Your task to perform on an android device: set the stopwatch Image 0: 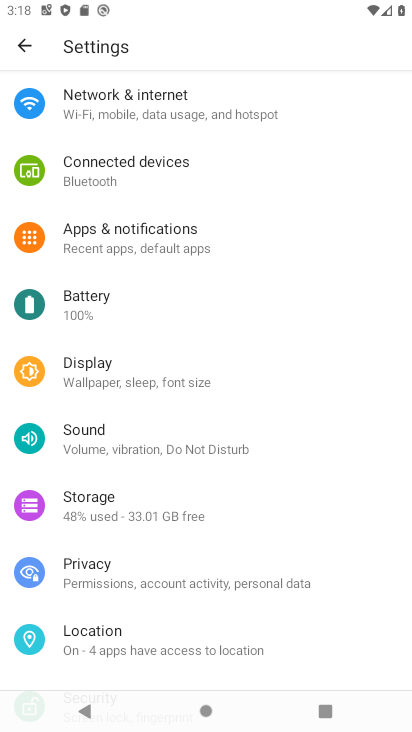
Step 0: press home button
Your task to perform on an android device: set the stopwatch Image 1: 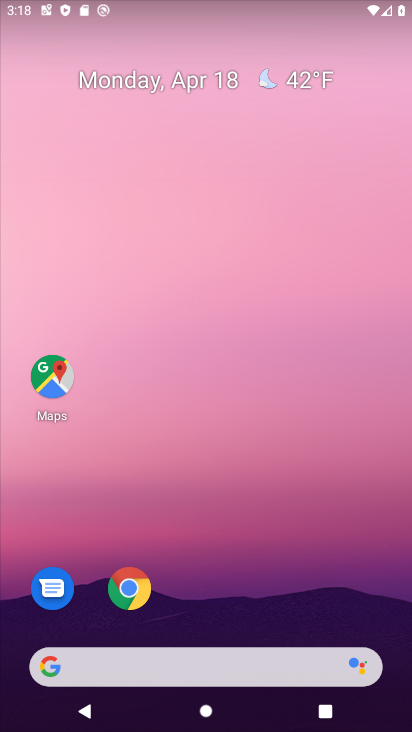
Step 1: drag from (212, 600) to (174, 74)
Your task to perform on an android device: set the stopwatch Image 2: 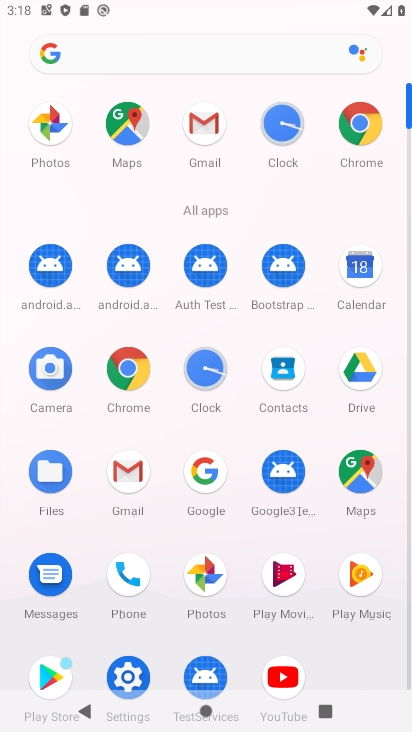
Step 2: click (194, 374)
Your task to perform on an android device: set the stopwatch Image 3: 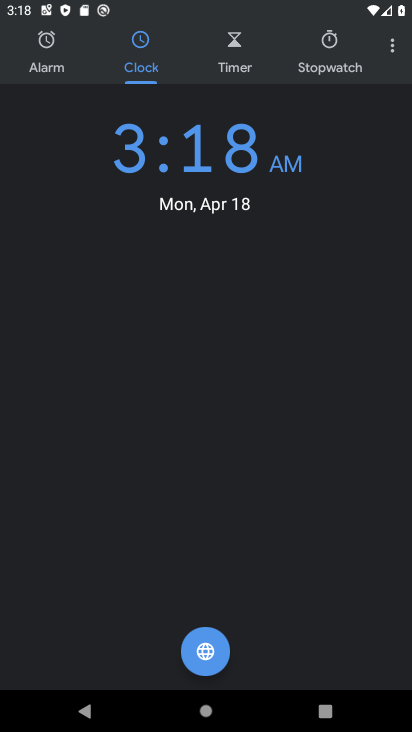
Step 3: click (327, 33)
Your task to perform on an android device: set the stopwatch Image 4: 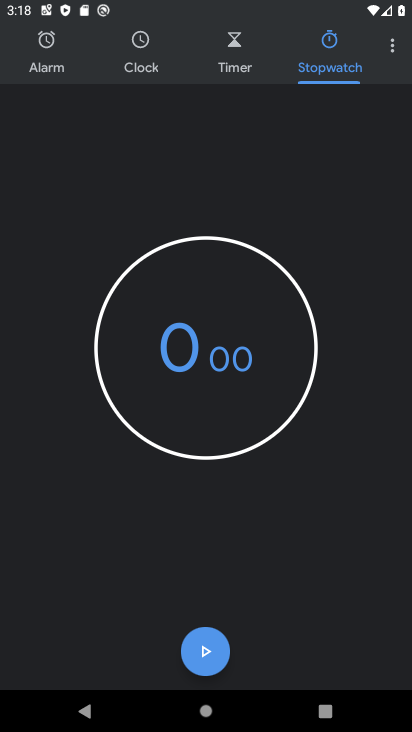
Step 4: click (205, 657)
Your task to perform on an android device: set the stopwatch Image 5: 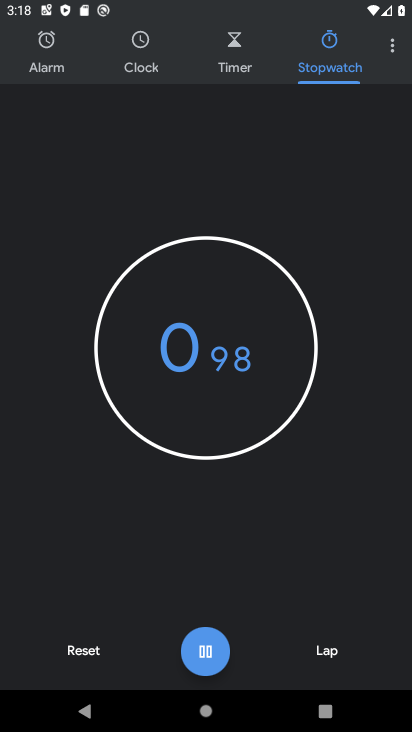
Step 5: task complete